Your task to perform on an android device: turn on translation in the chrome app Image 0: 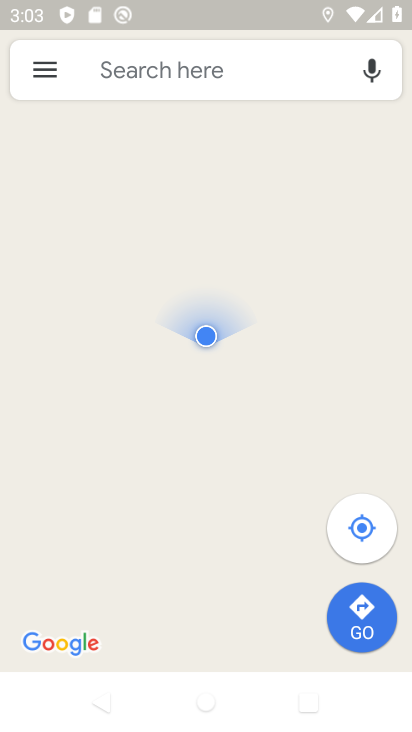
Step 0: press home button
Your task to perform on an android device: turn on translation in the chrome app Image 1: 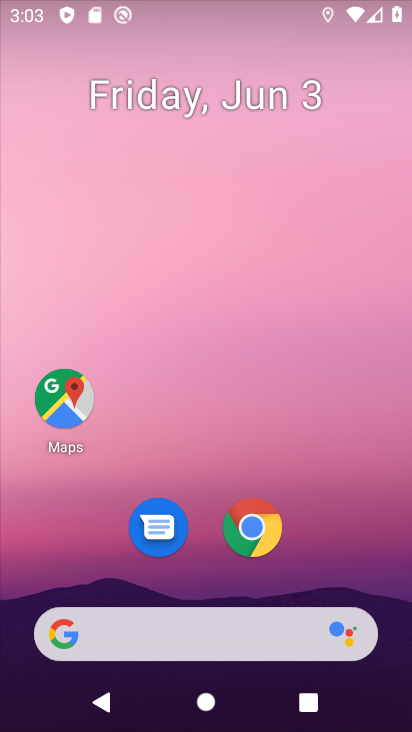
Step 1: click (180, 254)
Your task to perform on an android device: turn on translation in the chrome app Image 2: 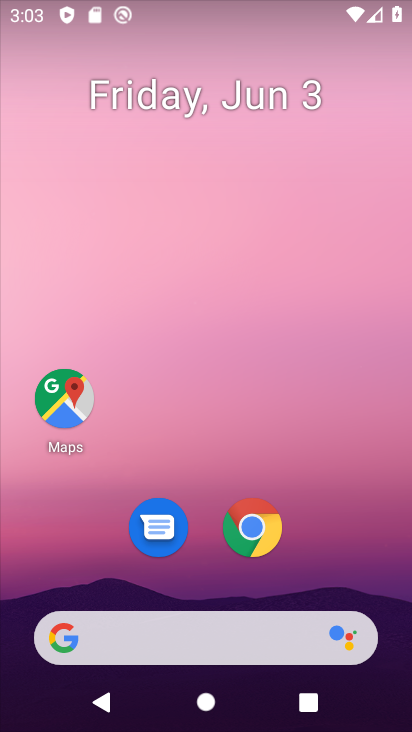
Step 2: click (250, 528)
Your task to perform on an android device: turn on translation in the chrome app Image 3: 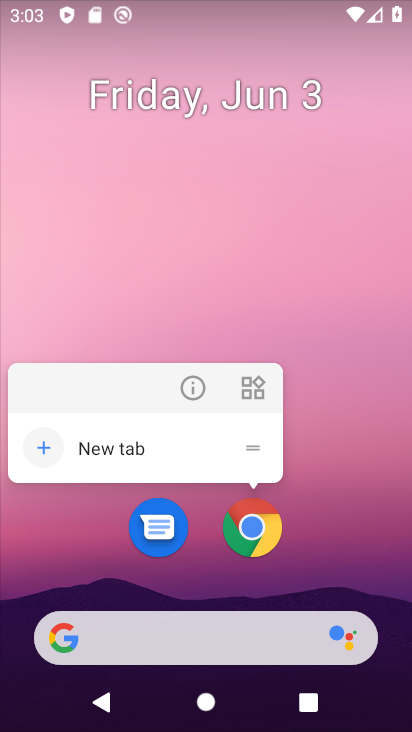
Step 3: click (256, 517)
Your task to perform on an android device: turn on translation in the chrome app Image 4: 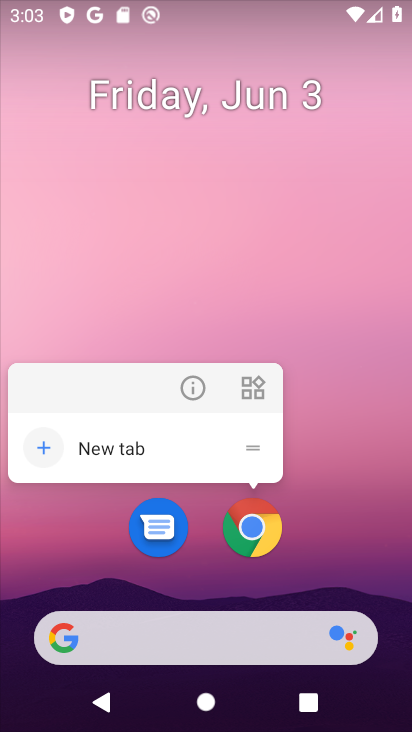
Step 4: click (256, 517)
Your task to perform on an android device: turn on translation in the chrome app Image 5: 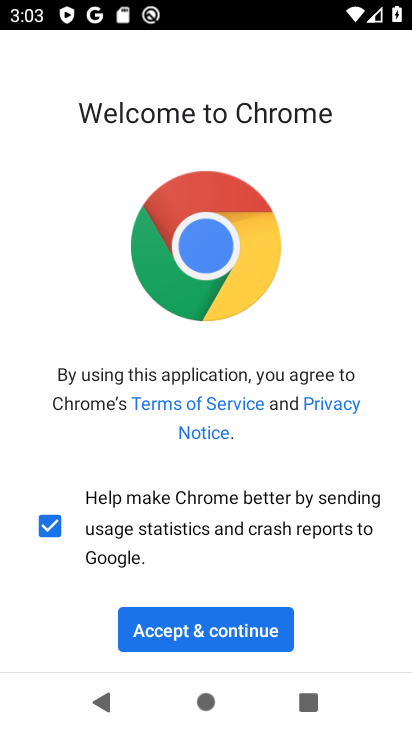
Step 5: click (241, 606)
Your task to perform on an android device: turn on translation in the chrome app Image 6: 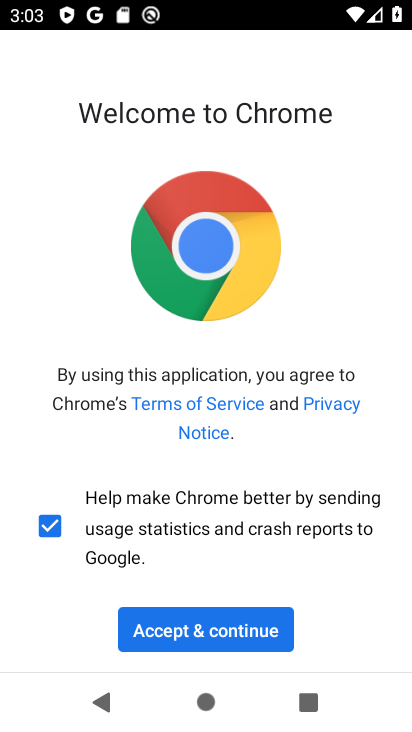
Step 6: click (241, 612)
Your task to perform on an android device: turn on translation in the chrome app Image 7: 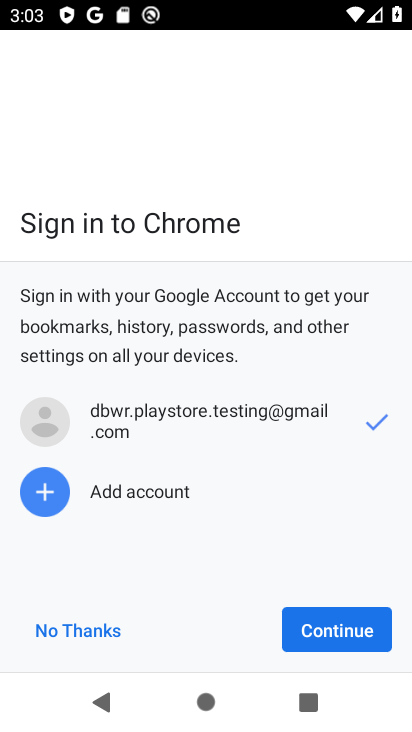
Step 7: click (333, 622)
Your task to perform on an android device: turn on translation in the chrome app Image 8: 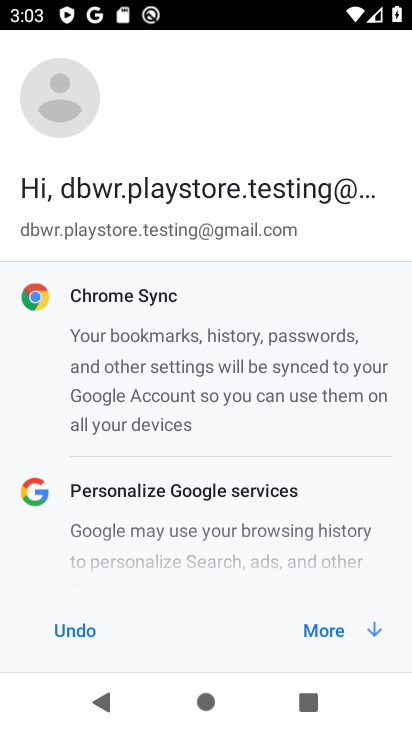
Step 8: click (333, 624)
Your task to perform on an android device: turn on translation in the chrome app Image 9: 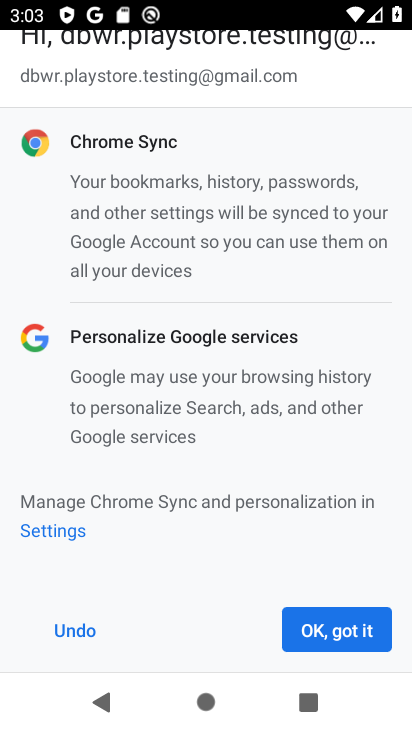
Step 9: click (333, 624)
Your task to perform on an android device: turn on translation in the chrome app Image 10: 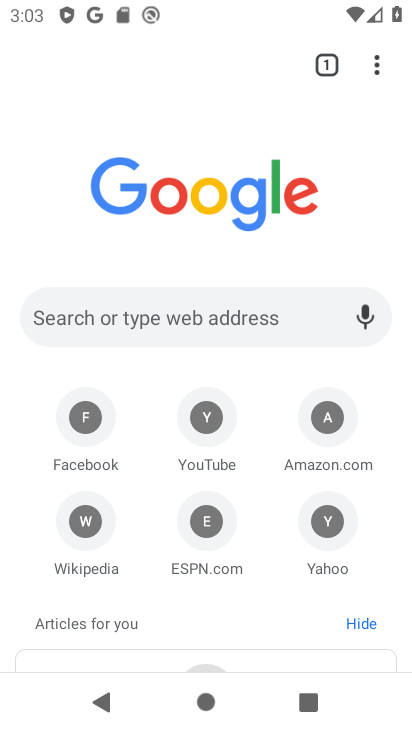
Step 10: click (371, 62)
Your task to perform on an android device: turn on translation in the chrome app Image 11: 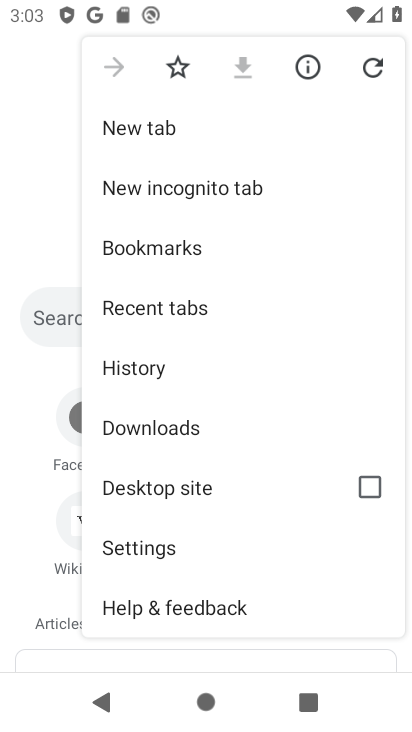
Step 11: click (190, 543)
Your task to perform on an android device: turn on translation in the chrome app Image 12: 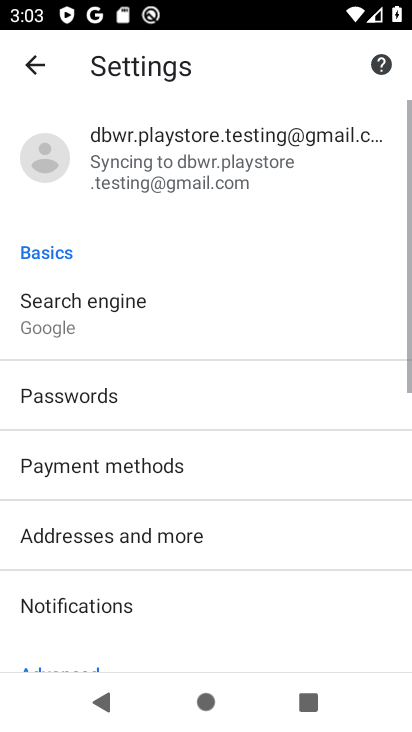
Step 12: drag from (202, 499) to (191, 216)
Your task to perform on an android device: turn on translation in the chrome app Image 13: 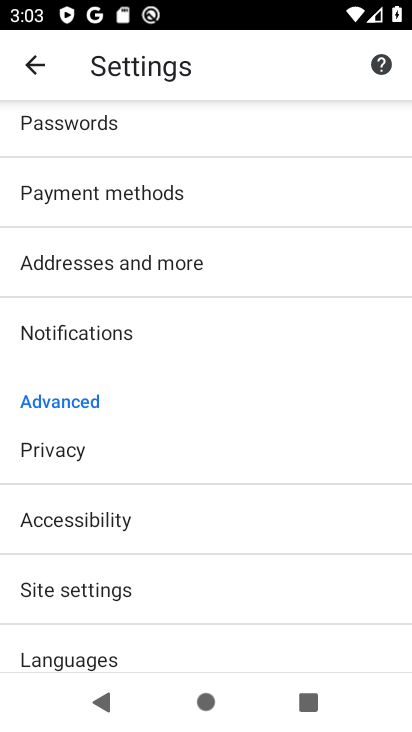
Step 13: drag from (175, 549) to (182, 233)
Your task to perform on an android device: turn on translation in the chrome app Image 14: 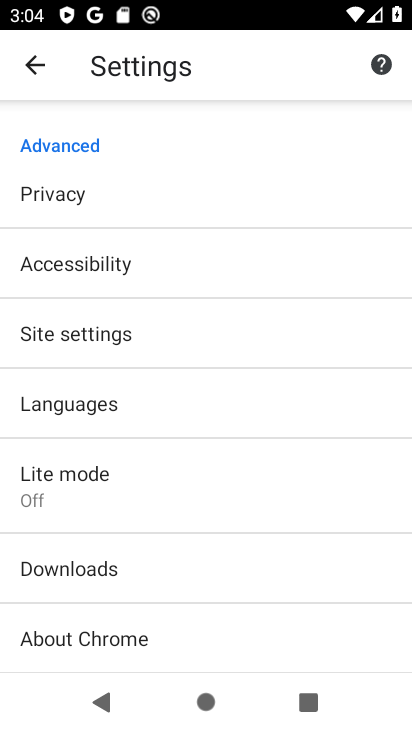
Step 14: click (136, 470)
Your task to perform on an android device: turn on translation in the chrome app Image 15: 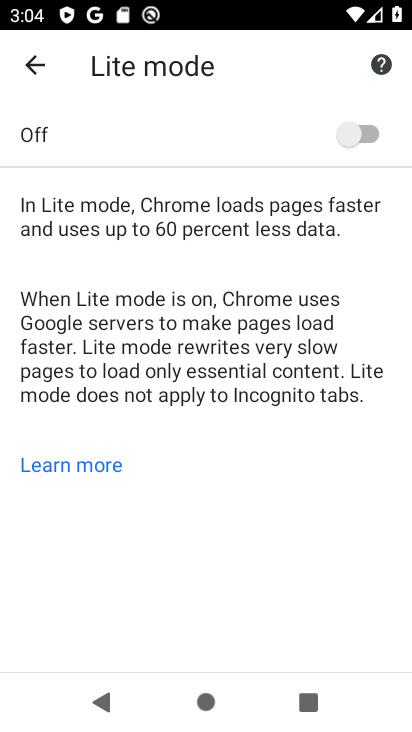
Step 15: click (35, 76)
Your task to perform on an android device: turn on translation in the chrome app Image 16: 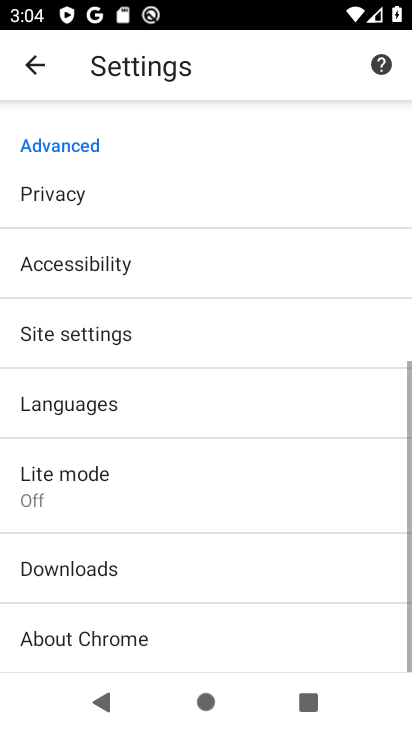
Step 16: click (134, 414)
Your task to perform on an android device: turn on translation in the chrome app Image 17: 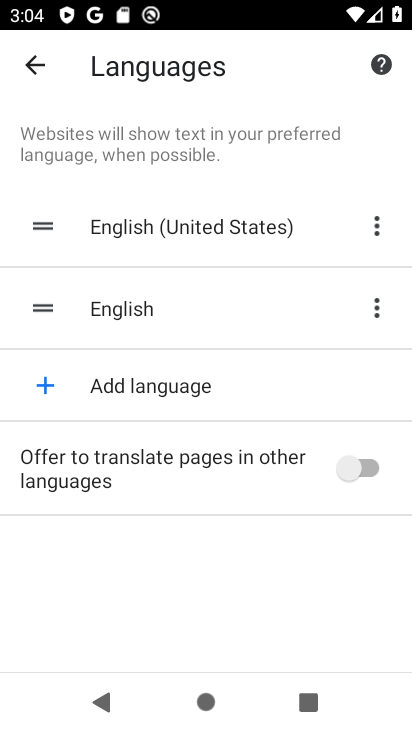
Step 17: click (364, 469)
Your task to perform on an android device: turn on translation in the chrome app Image 18: 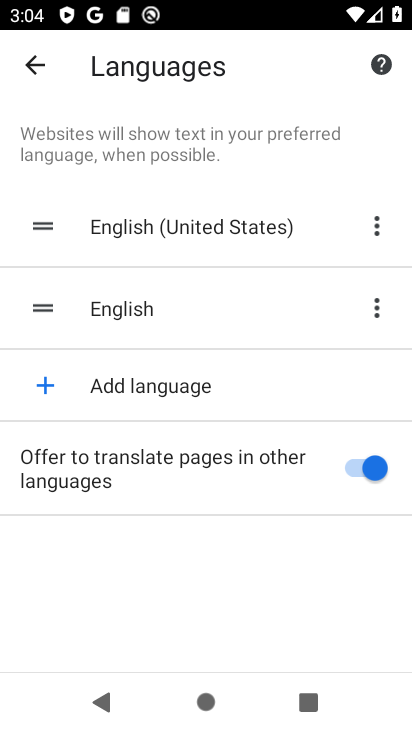
Step 18: task complete